Your task to perform on an android device: turn off wifi Image 0: 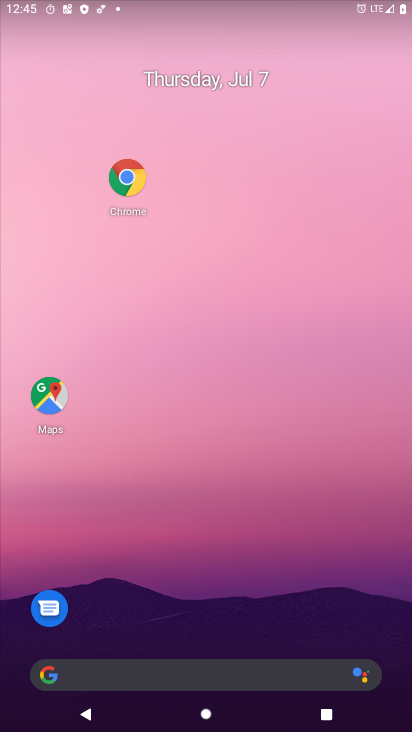
Step 0: drag from (144, 658) to (144, 361)
Your task to perform on an android device: turn off wifi Image 1: 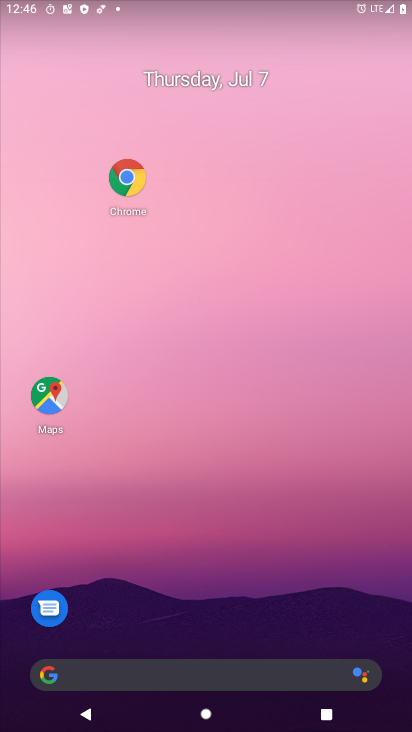
Step 1: drag from (219, 669) to (283, 121)
Your task to perform on an android device: turn off wifi Image 2: 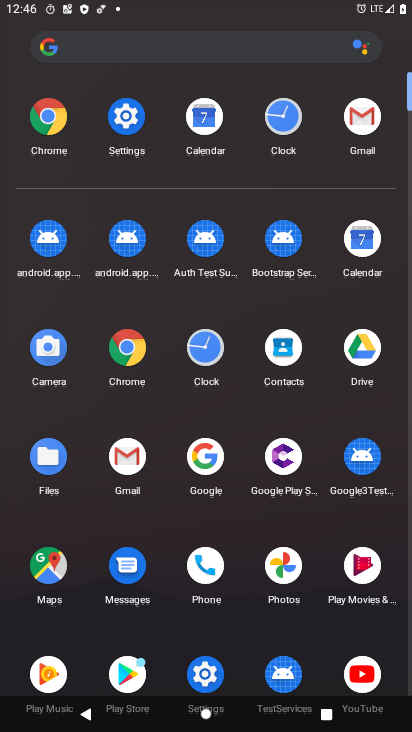
Step 2: click (128, 122)
Your task to perform on an android device: turn off wifi Image 3: 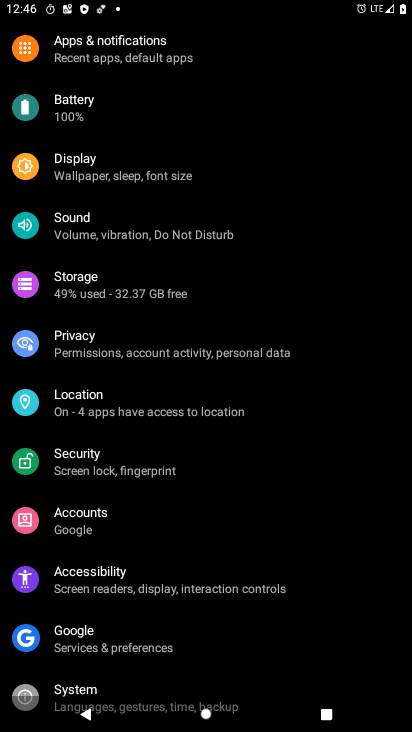
Step 3: drag from (126, 39) to (179, 379)
Your task to perform on an android device: turn off wifi Image 4: 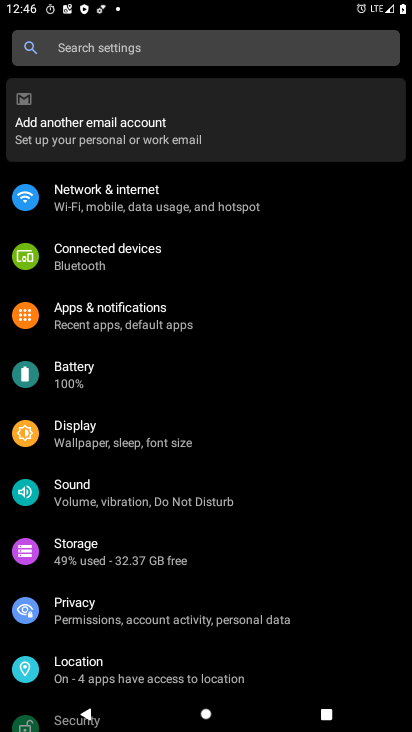
Step 4: click (137, 188)
Your task to perform on an android device: turn off wifi Image 5: 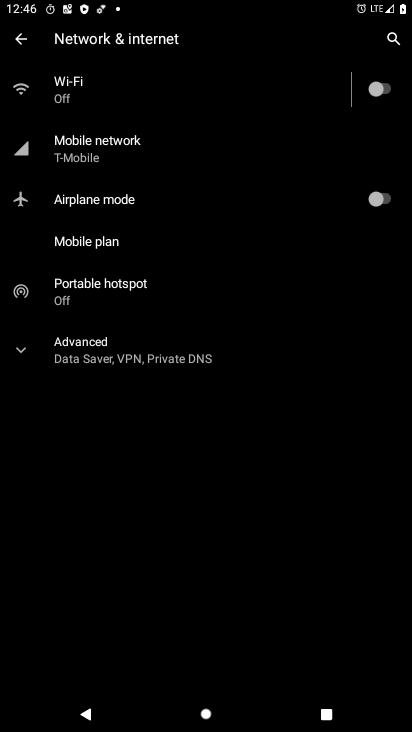
Step 5: task complete